Your task to perform on an android device: turn on priority inbox in the gmail app Image 0: 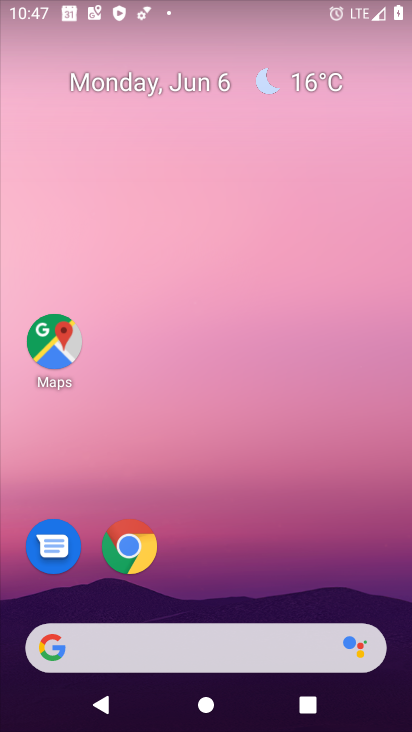
Step 0: drag from (240, 514) to (258, 236)
Your task to perform on an android device: turn on priority inbox in the gmail app Image 1: 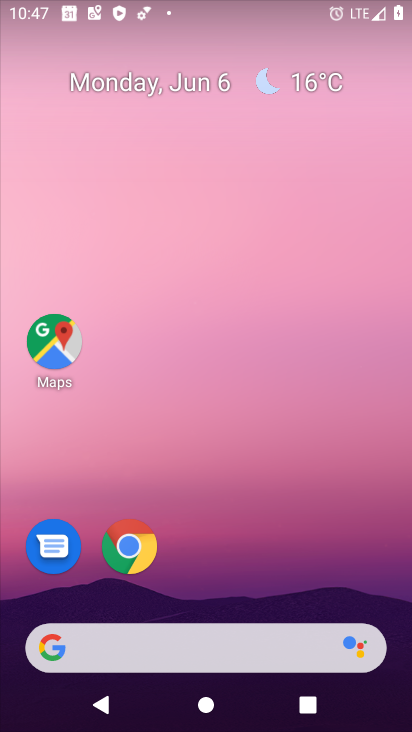
Step 1: drag from (223, 589) to (293, 112)
Your task to perform on an android device: turn on priority inbox in the gmail app Image 2: 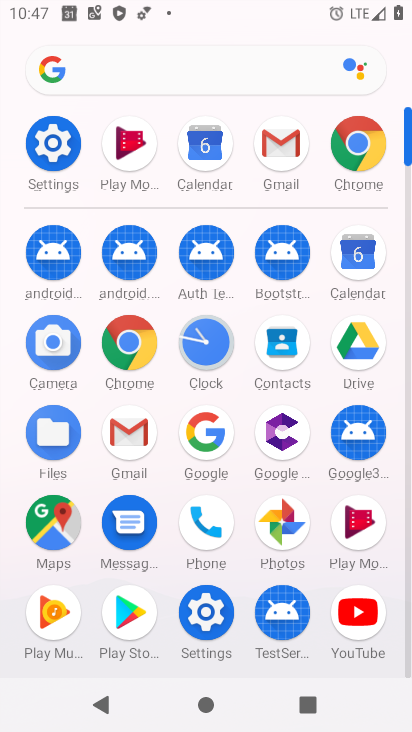
Step 2: click (135, 433)
Your task to perform on an android device: turn on priority inbox in the gmail app Image 3: 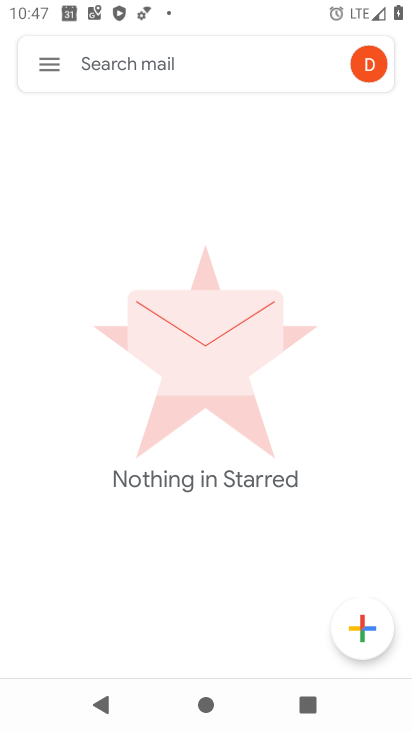
Step 3: click (46, 62)
Your task to perform on an android device: turn on priority inbox in the gmail app Image 4: 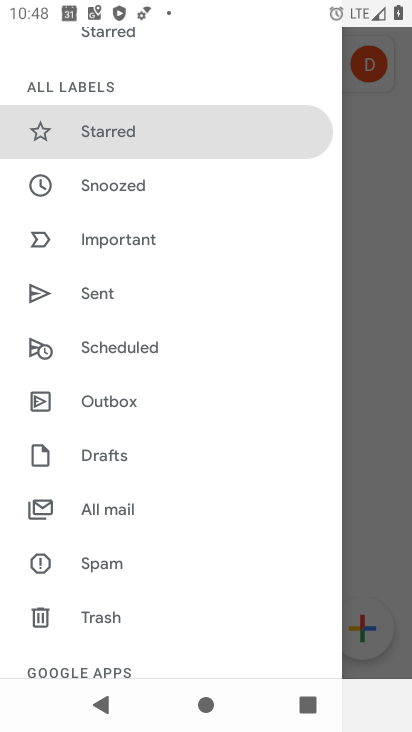
Step 4: drag from (133, 582) to (173, 381)
Your task to perform on an android device: turn on priority inbox in the gmail app Image 5: 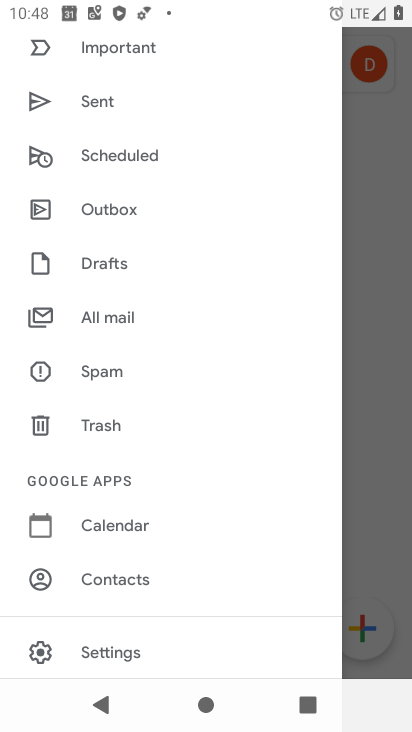
Step 5: drag from (121, 581) to (178, 294)
Your task to perform on an android device: turn on priority inbox in the gmail app Image 6: 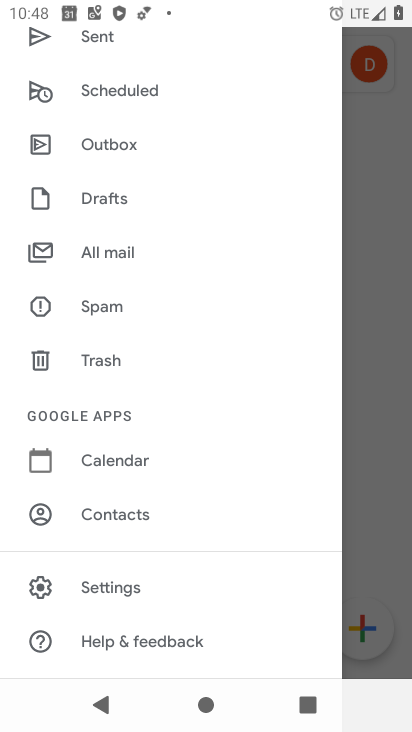
Step 6: click (135, 584)
Your task to perform on an android device: turn on priority inbox in the gmail app Image 7: 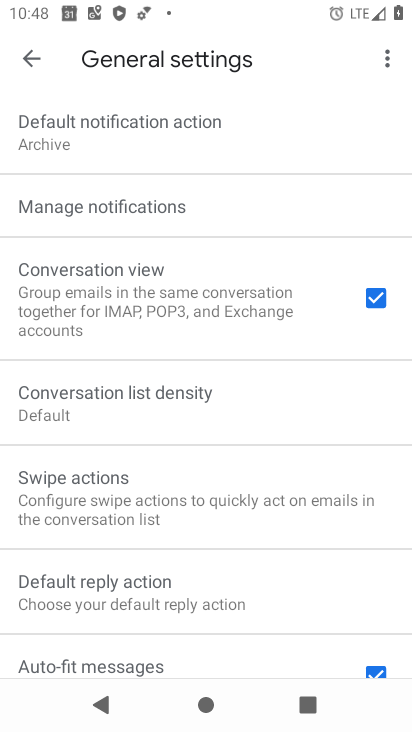
Step 7: click (28, 55)
Your task to perform on an android device: turn on priority inbox in the gmail app Image 8: 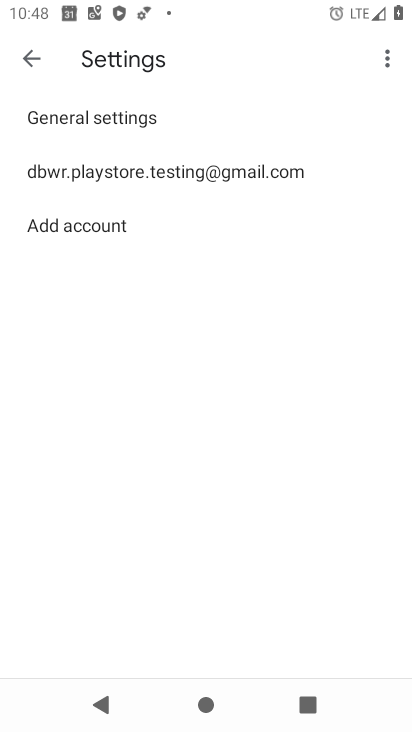
Step 8: click (133, 166)
Your task to perform on an android device: turn on priority inbox in the gmail app Image 9: 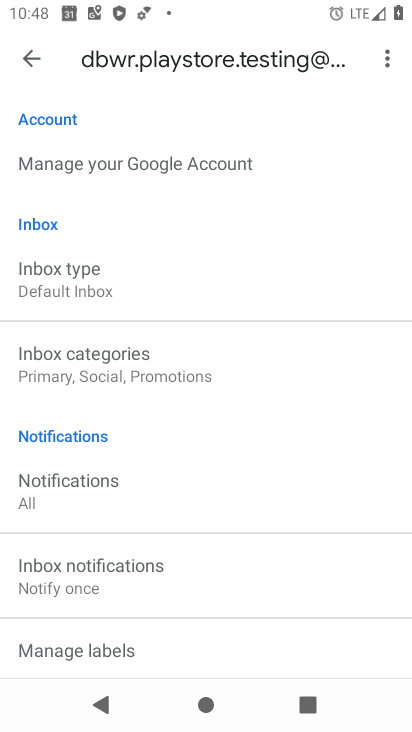
Step 9: click (114, 298)
Your task to perform on an android device: turn on priority inbox in the gmail app Image 10: 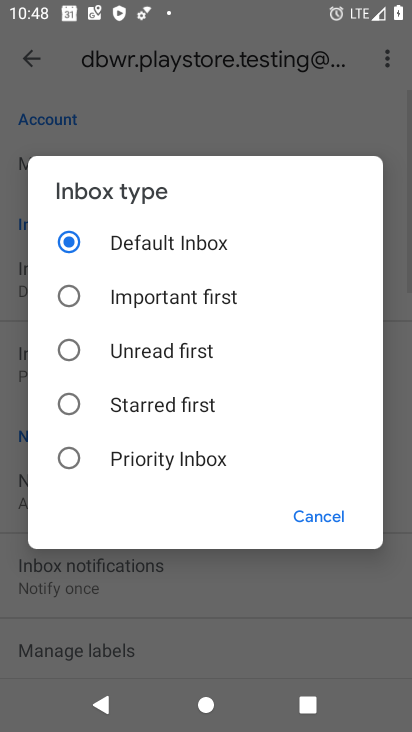
Step 10: click (122, 463)
Your task to perform on an android device: turn on priority inbox in the gmail app Image 11: 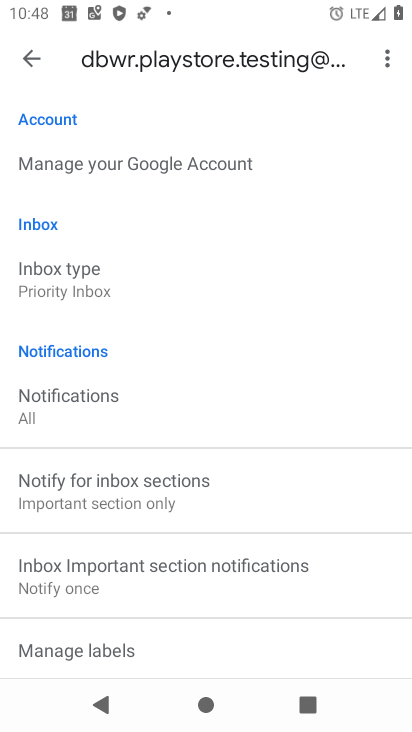
Step 11: task complete